Your task to perform on an android device: Open Android settings Image 0: 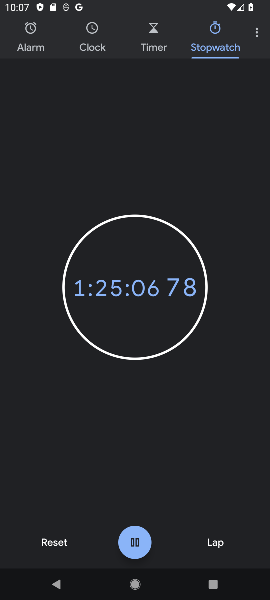
Step 0: press home button
Your task to perform on an android device: Open Android settings Image 1: 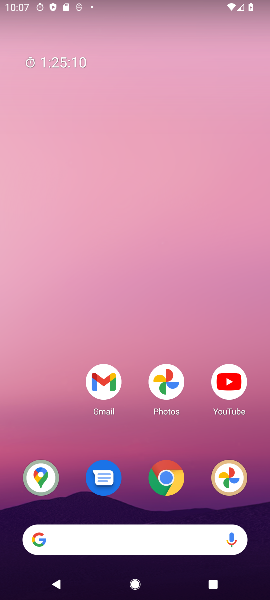
Step 1: drag from (131, 438) to (148, 108)
Your task to perform on an android device: Open Android settings Image 2: 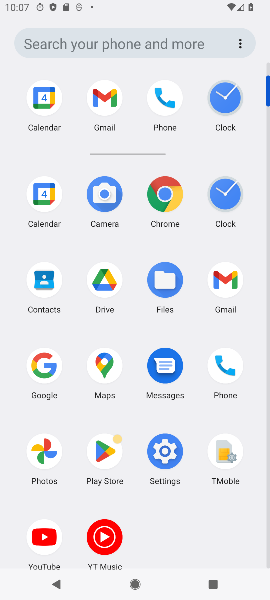
Step 2: click (164, 454)
Your task to perform on an android device: Open Android settings Image 3: 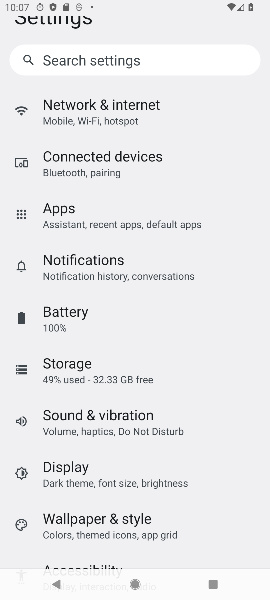
Step 3: drag from (218, 545) to (241, 171)
Your task to perform on an android device: Open Android settings Image 4: 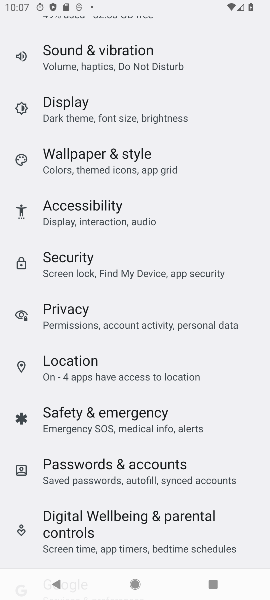
Step 4: drag from (198, 546) to (179, 175)
Your task to perform on an android device: Open Android settings Image 5: 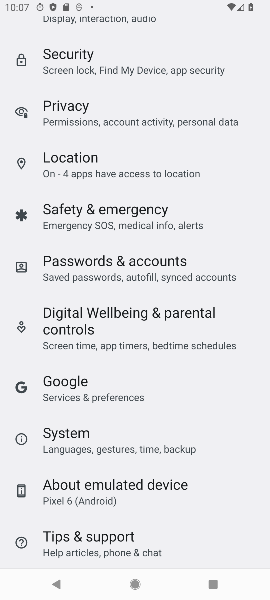
Step 5: click (144, 487)
Your task to perform on an android device: Open Android settings Image 6: 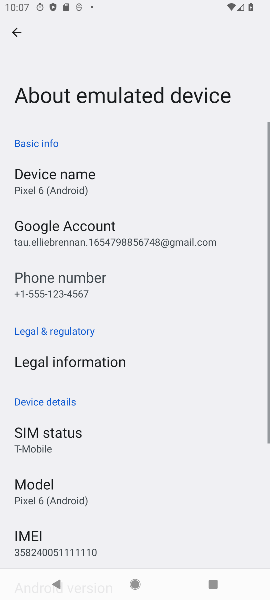
Step 6: drag from (133, 496) to (154, 212)
Your task to perform on an android device: Open Android settings Image 7: 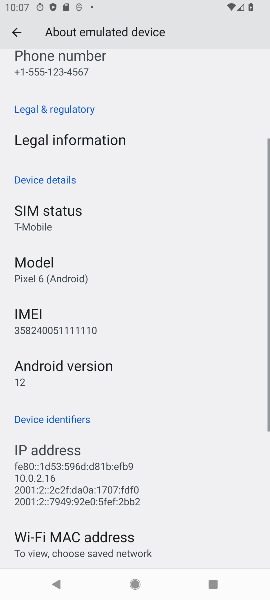
Step 7: click (94, 364)
Your task to perform on an android device: Open Android settings Image 8: 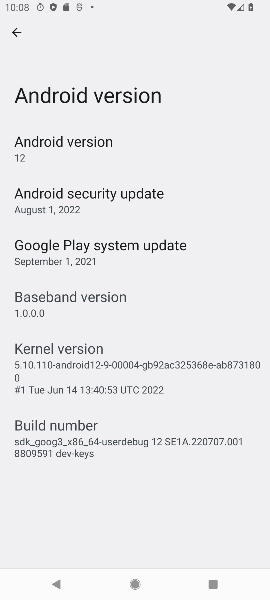
Step 8: task complete